Your task to perform on an android device: toggle notification dots Image 0: 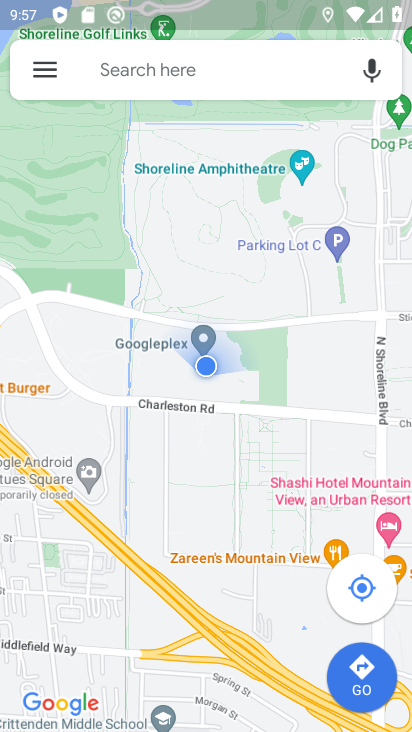
Step 0: drag from (201, 188) to (232, 72)
Your task to perform on an android device: toggle notification dots Image 1: 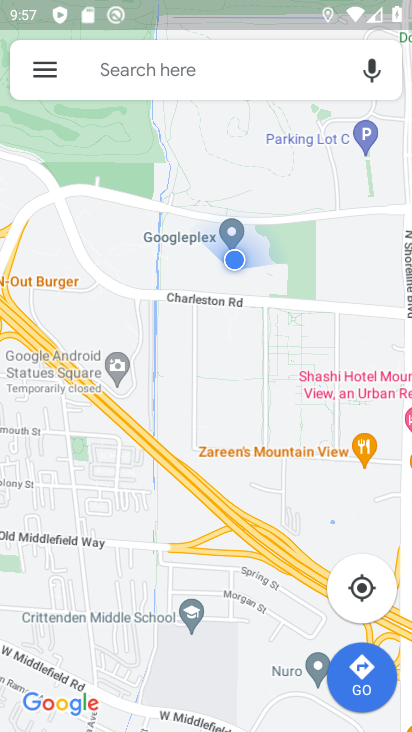
Step 1: press home button
Your task to perform on an android device: toggle notification dots Image 2: 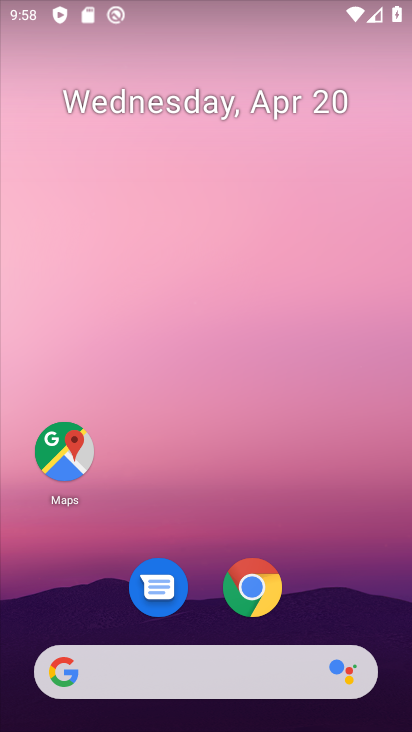
Step 2: drag from (329, 577) to (311, 103)
Your task to perform on an android device: toggle notification dots Image 3: 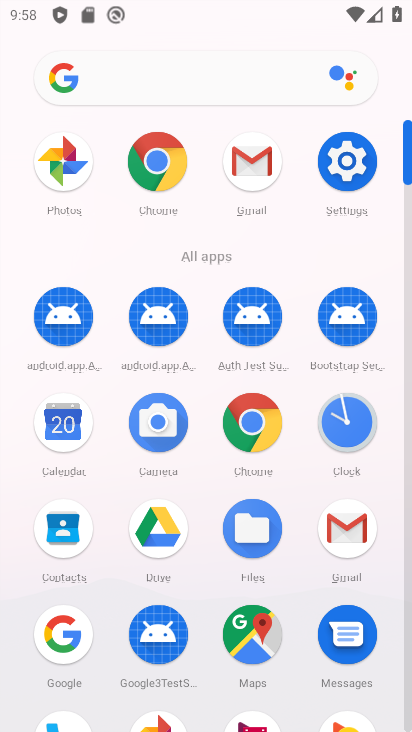
Step 3: click (327, 183)
Your task to perform on an android device: toggle notification dots Image 4: 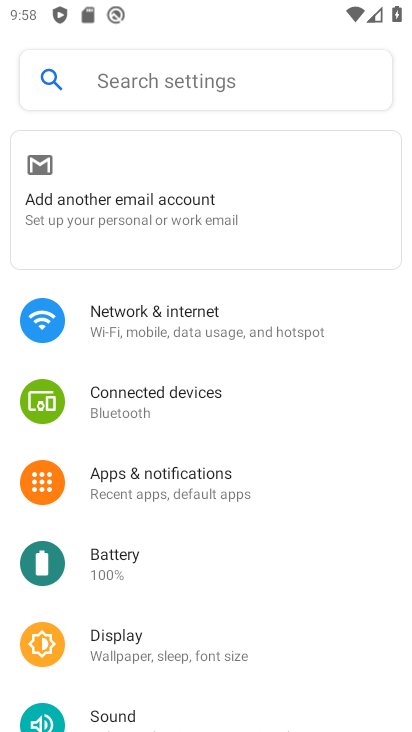
Step 4: click (133, 487)
Your task to perform on an android device: toggle notification dots Image 5: 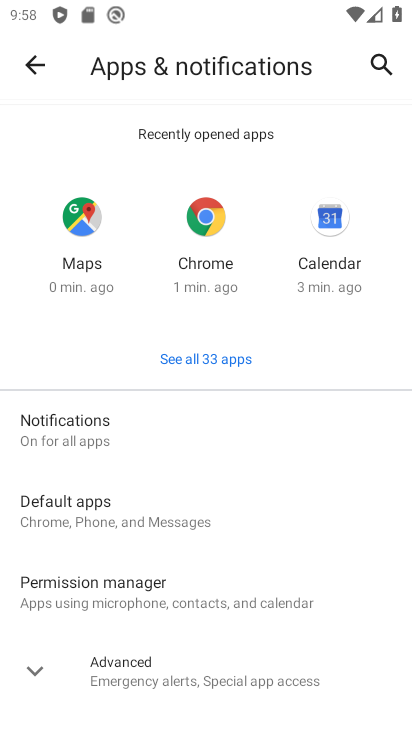
Step 5: click (104, 430)
Your task to perform on an android device: toggle notification dots Image 6: 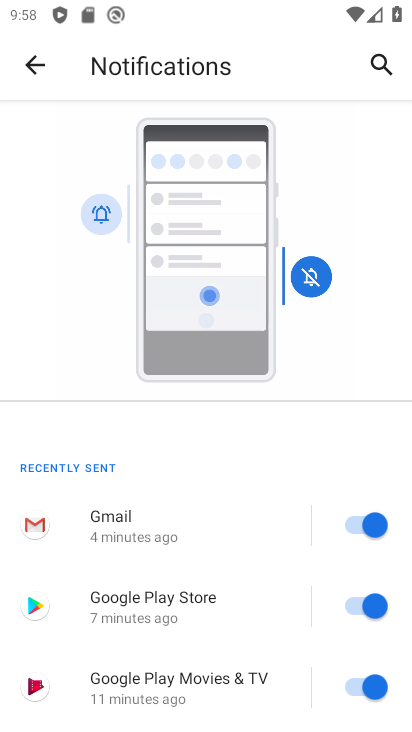
Step 6: drag from (152, 622) to (75, 227)
Your task to perform on an android device: toggle notification dots Image 7: 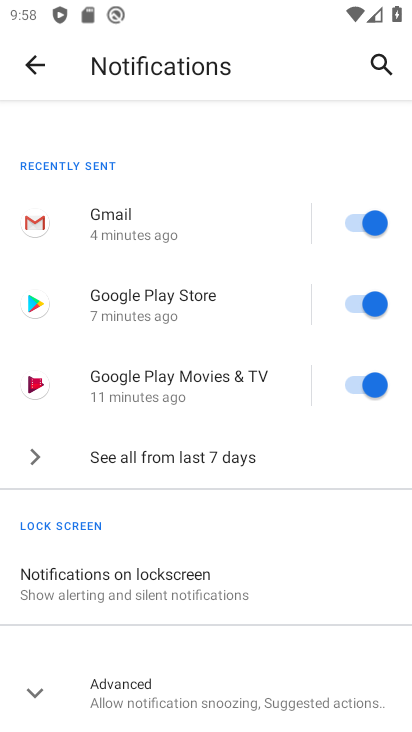
Step 7: click (146, 690)
Your task to perform on an android device: toggle notification dots Image 8: 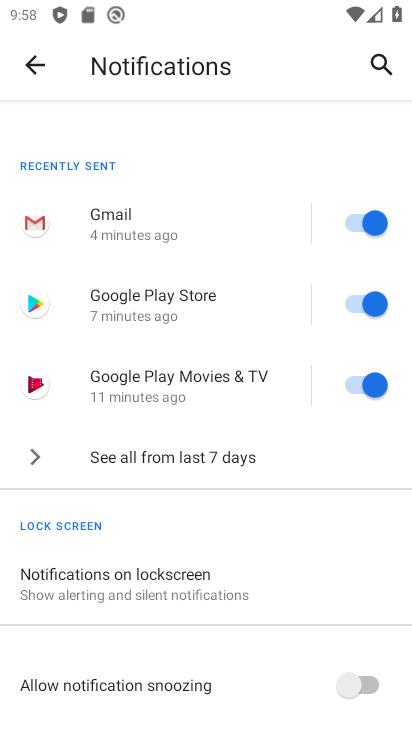
Step 8: drag from (227, 641) to (95, 158)
Your task to perform on an android device: toggle notification dots Image 9: 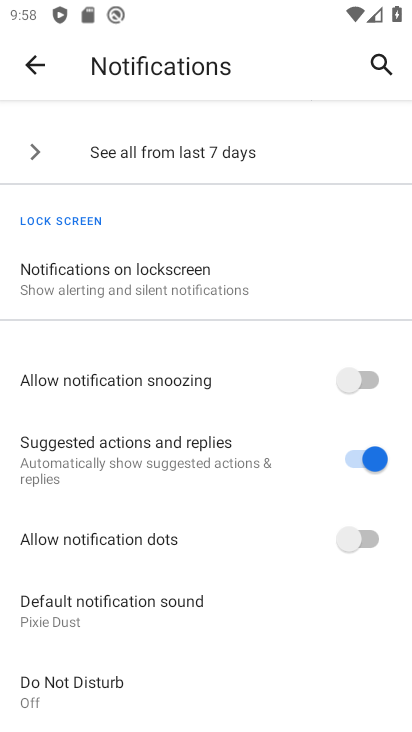
Step 9: click (369, 542)
Your task to perform on an android device: toggle notification dots Image 10: 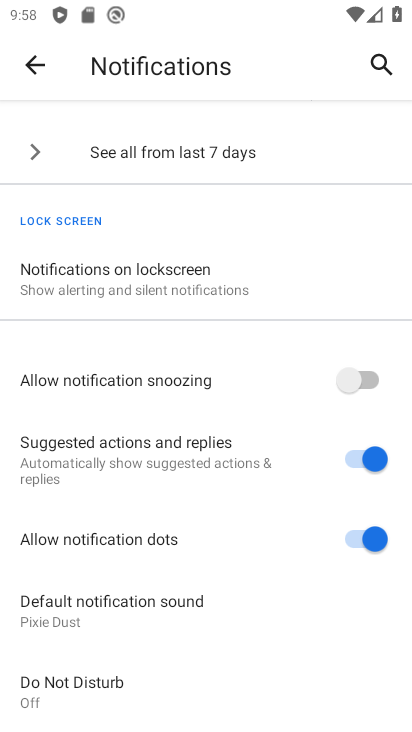
Step 10: task complete